Your task to perform on an android device: turn pop-ups off in chrome Image 0: 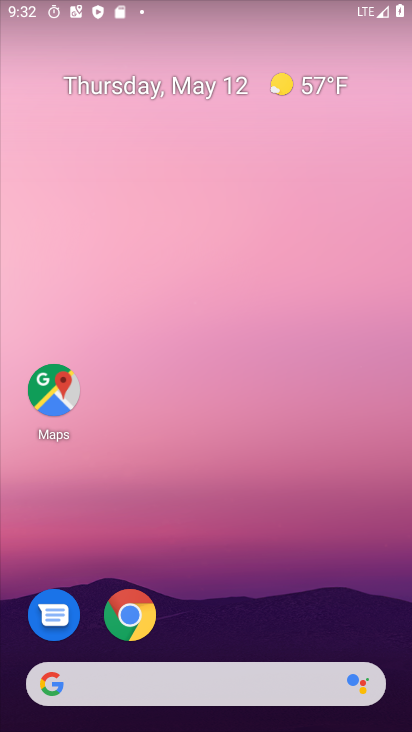
Step 0: drag from (210, 531) to (193, 36)
Your task to perform on an android device: turn pop-ups off in chrome Image 1: 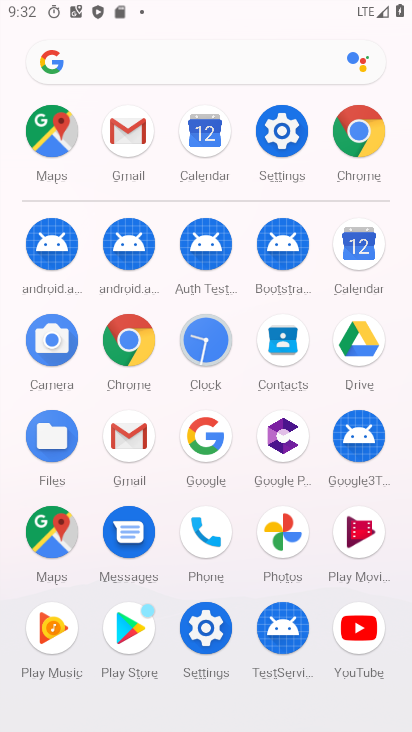
Step 1: drag from (6, 567) to (13, 261)
Your task to perform on an android device: turn pop-ups off in chrome Image 2: 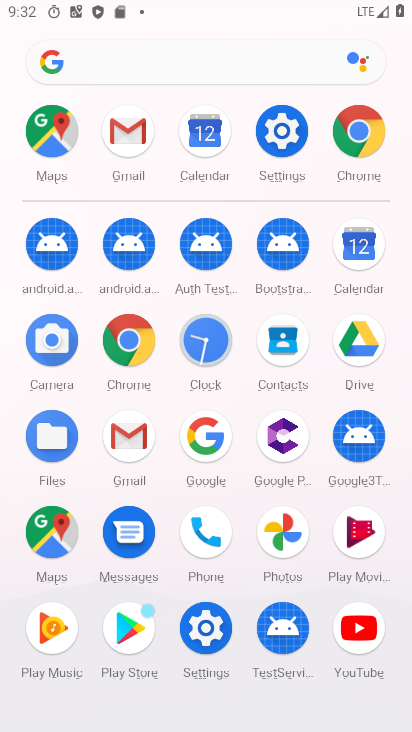
Step 2: click (129, 341)
Your task to perform on an android device: turn pop-ups off in chrome Image 3: 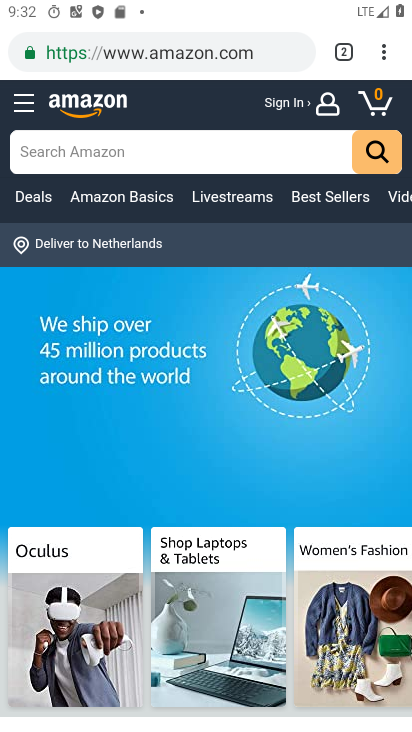
Step 3: drag from (382, 51) to (207, 624)
Your task to perform on an android device: turn pop-ups off in chrome Image 4: 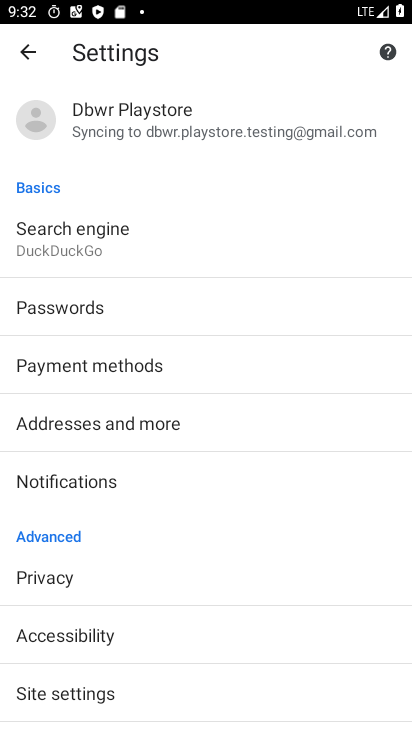
Step 4: drag from (204, 564) to (211, 169)
Your task to perform on an android device: turn pop-ups off in chrome Image 5: 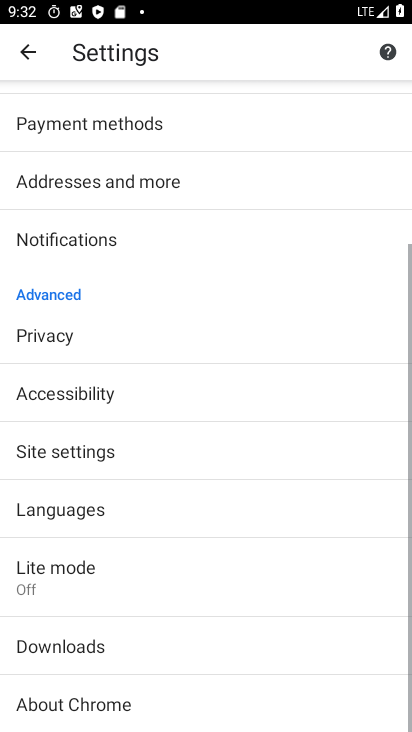
Step 5: click (117, 437)
Your task to perform on an android device: turn pop-ups off in chrome Image 6: 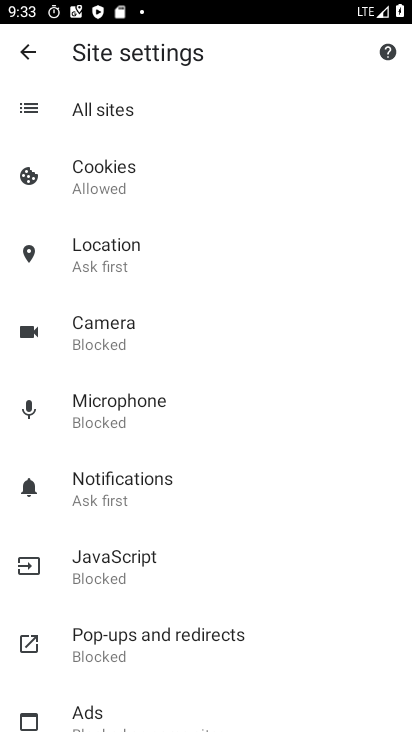
Step 6: drag from (256, 539) to (269, 329)
Your task to perform on an android device: turn pop-ups off in chrome Image 7: 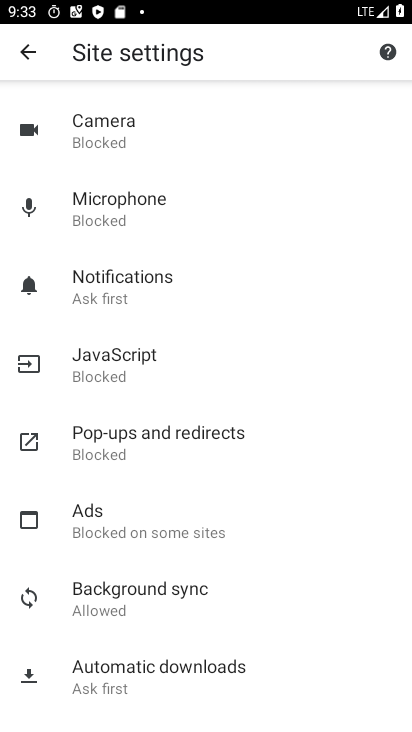
Step 7: click (151, 445)
Your task to perform on an android device: turn pop-ups off in chrome Image 8: 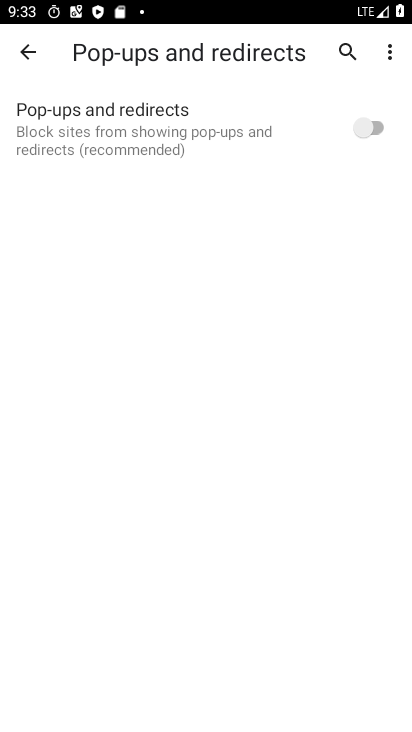
Step 8: task complete